Your task to perform on an android device: Search for vegetarian restaurants on Maps Image 0: 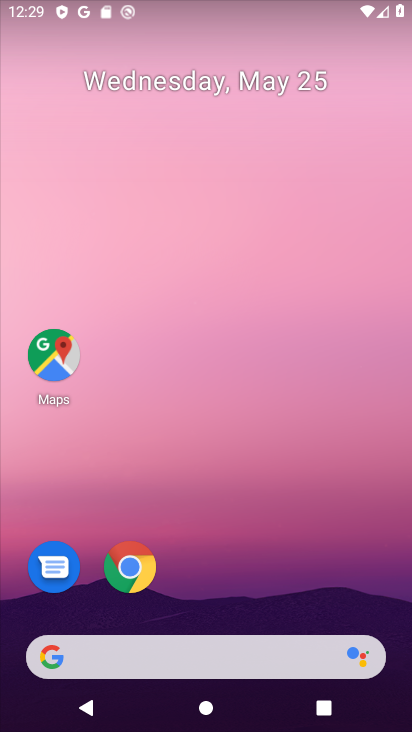
Step 0: click (54, 354)
Your task to perform on an android device: Search for vegetarian restaurants on Maps Image 1: 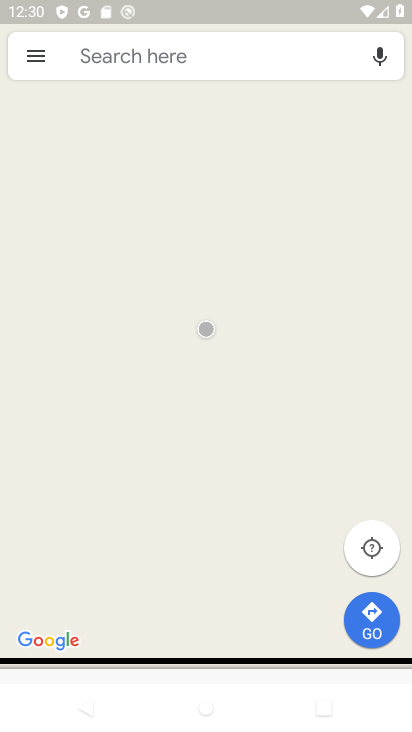
Step 1: click (130, 57)
Your task to perform on an android device: Search for vegetarian restaurants on Maps Image 2: 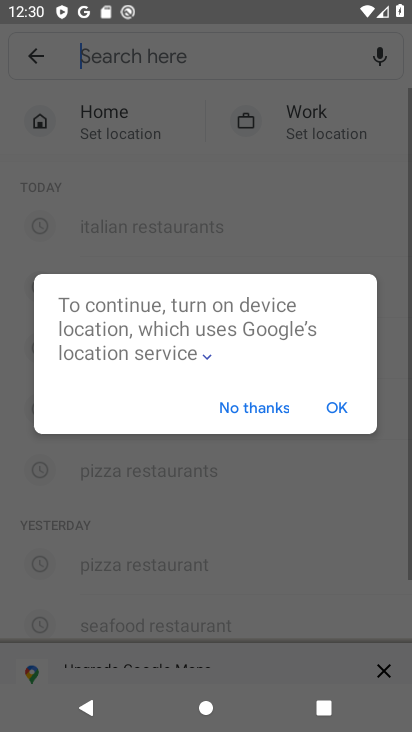
Step 2: click (259, 409)
Your task to perform on an android device: Search for vegetarian restaurants on Maps Image 3: 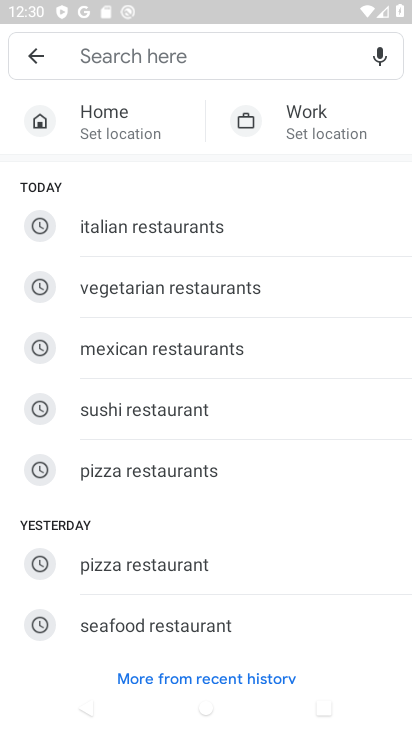
Step 3: type "vegetarian restaurants"
Your task to perform on an android device: Search for vegetarian restaurants on Maps Image 4: 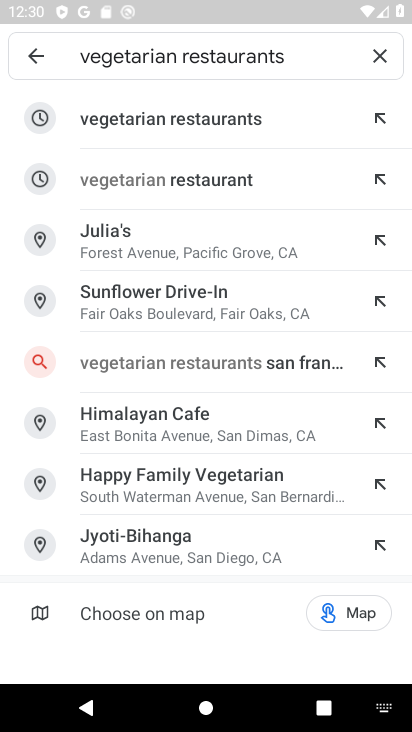
Step 4: click (264, 109)
Your task to perform on an android device: Search for vegetarian restaurants on Maps Image 5: 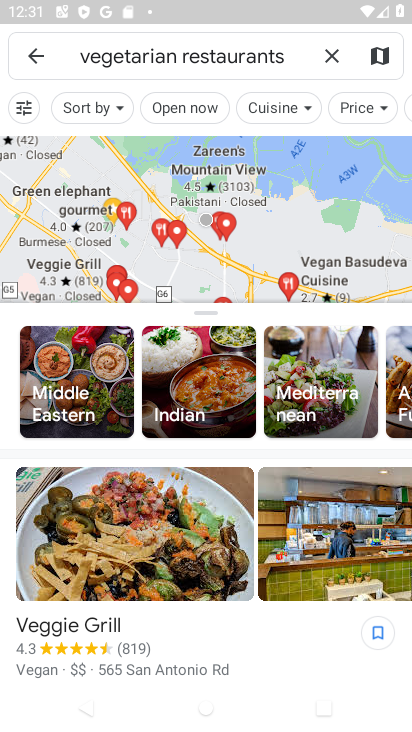
Step 5: task complete